Your task to perform on an android device: Open ESPN.com Image 0: 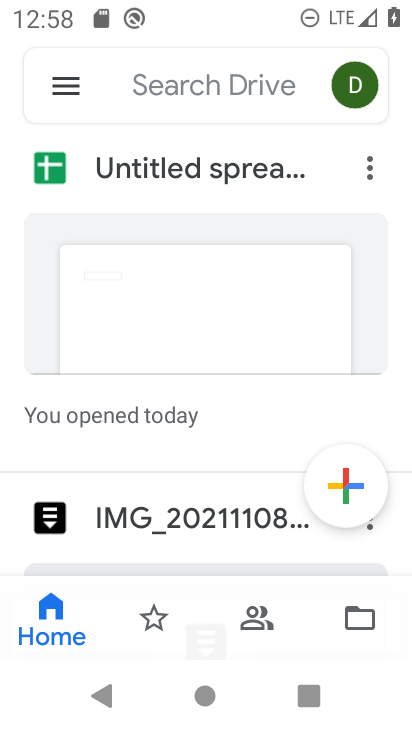
Step 0: press home button
Your task to perform on an android device: Open ESPN.com Image 1: 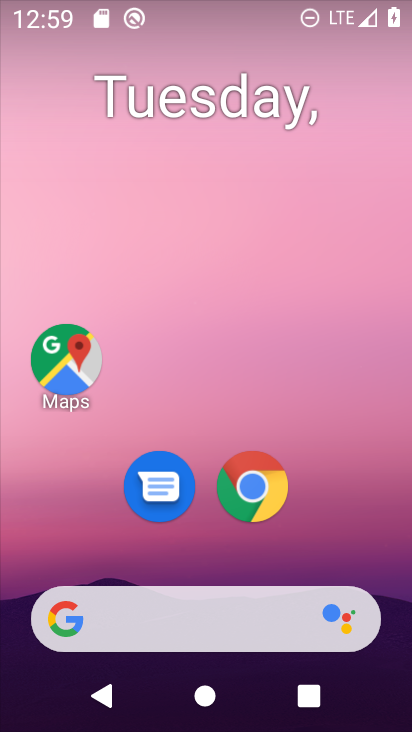
Step 1: click (260, 468)
Your task to perform on an android device: Open ESPN.com Image 2: 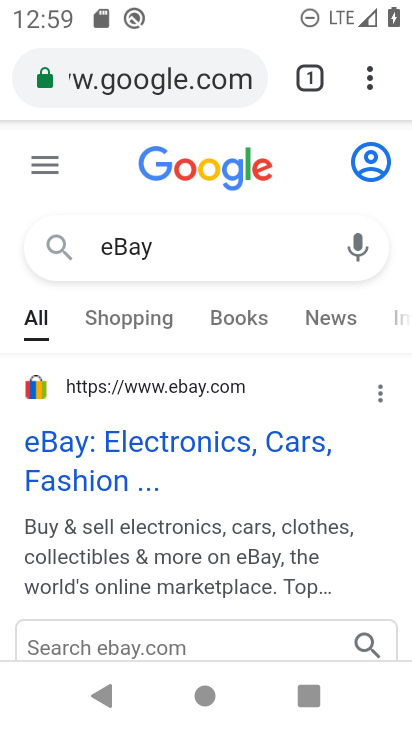
Step 2: click (304, 82)
Your task to perform on an android device: Open ESPN.com Image 3: 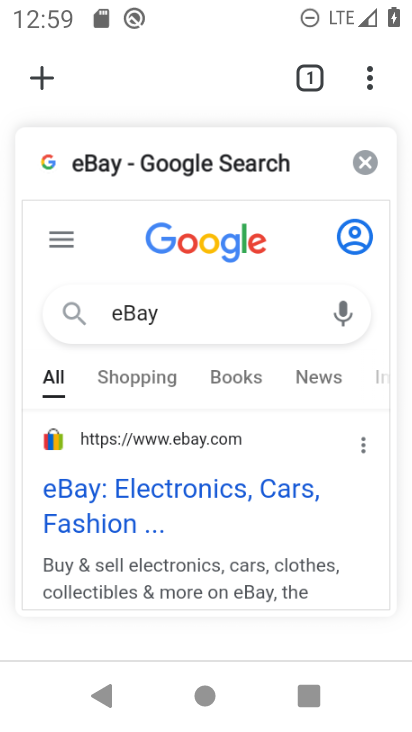
Step 3: click (367, 169)
Your task to perform on an android device: Open ESPN.com Image 4: 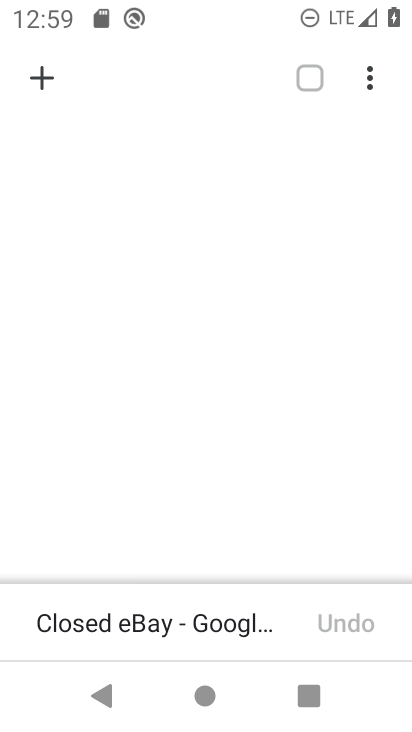
Step 4: click (41, 86)
Your task to perform on an android device: Open ESPN.com Image 5: 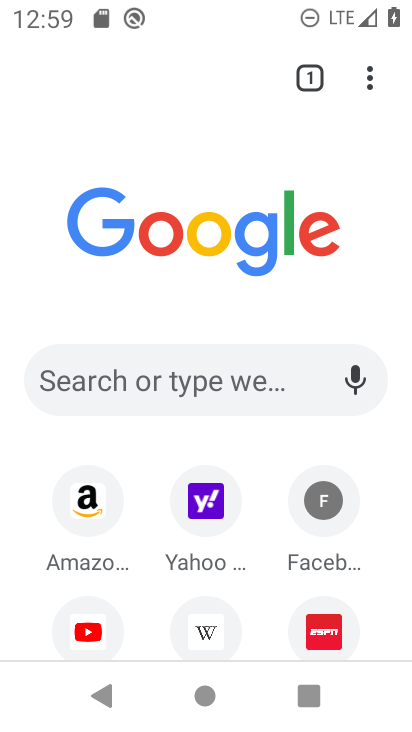
Step 5: click (311, 630)
Your task to perform on an android device: Open ESPN.com Image 6: 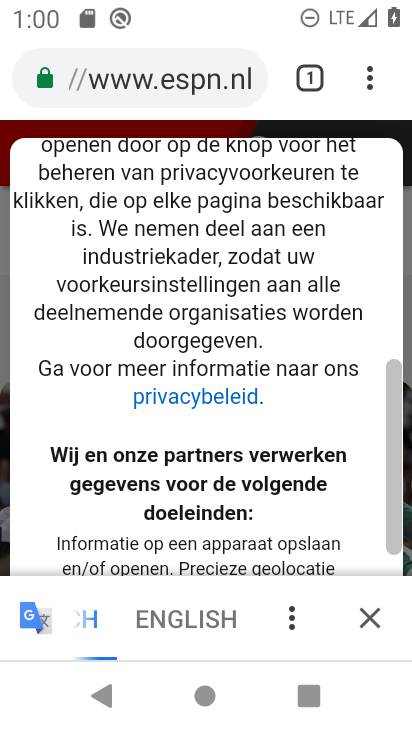
Step 6: task complete